Your task to perform on an android device: show emergency info Image 0: 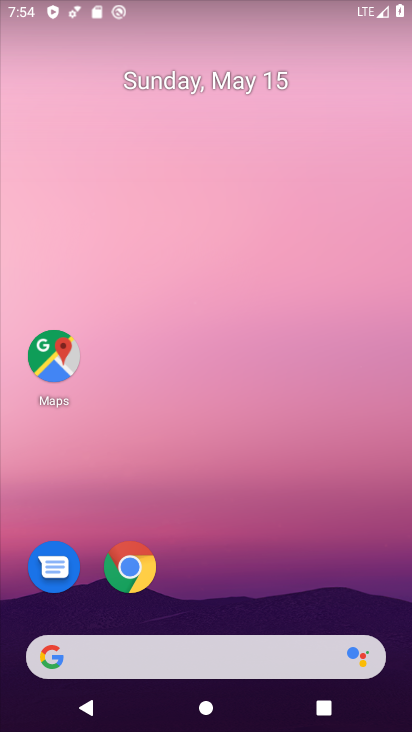
Step 0: drag from (226, 607) to (284, 131)
Your task to perform on an android device: show emergency info Image 1: 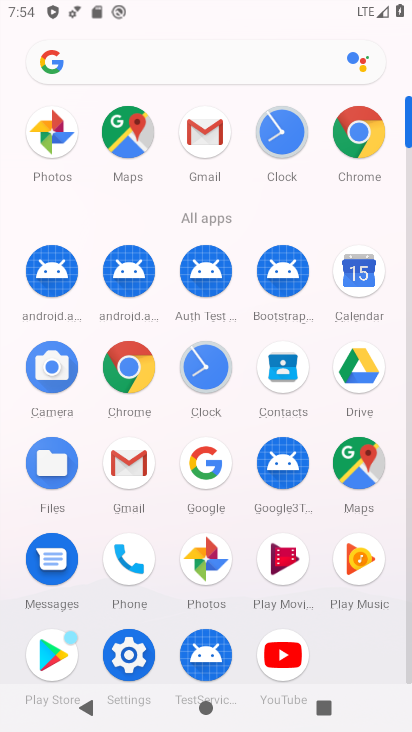
Step 1: click (127, 674)
Your task to perform on an android device: show emergency info Image 2: 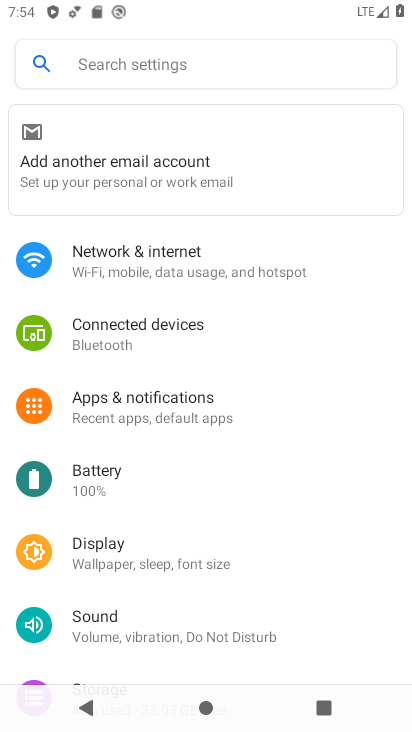
Step 2: drag from (156, 663) to (201, 123)
Your task to perform on an android device: show emergency info Image 3: 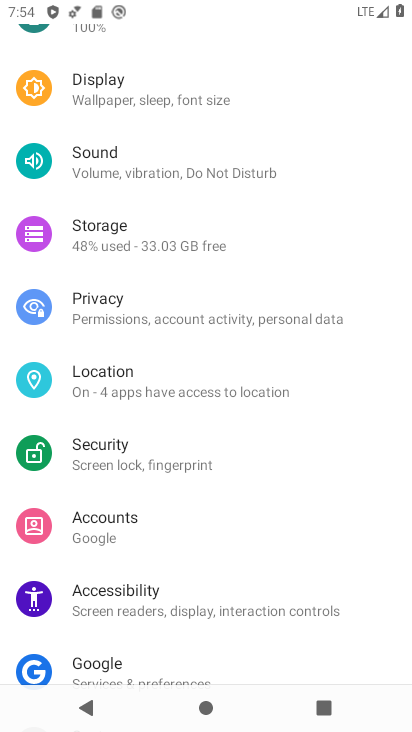
Step 3: drag from (119, 628) to (224, 49)
Your task to perform on an android device: show emergency info Image 4: 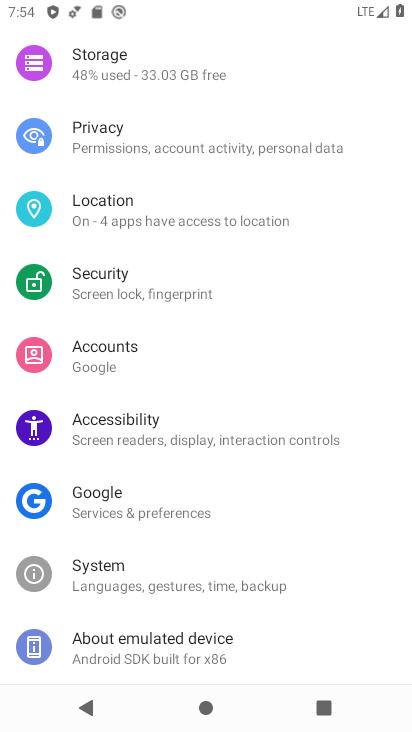
Step 4: click (181, 632)
Your task to perform on an android device: show emergency info Image 5: 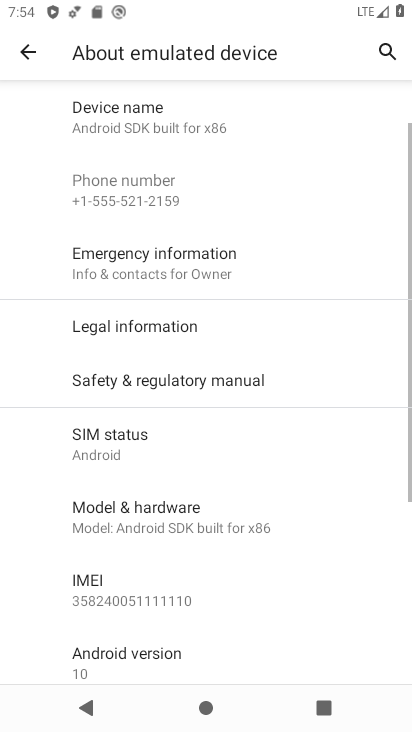
Step 5: click (212, 259)
Your task to perform on an android device: show emergency info Image 6: 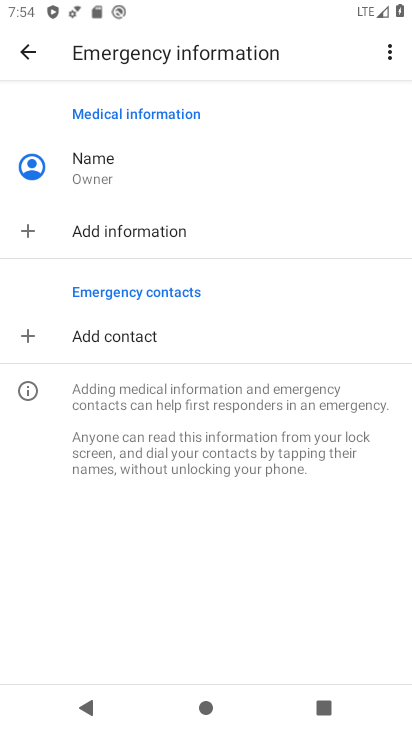
Step 6: task complete